Your task to perform on an android device: toggle javascript in the chrome app Image 0: 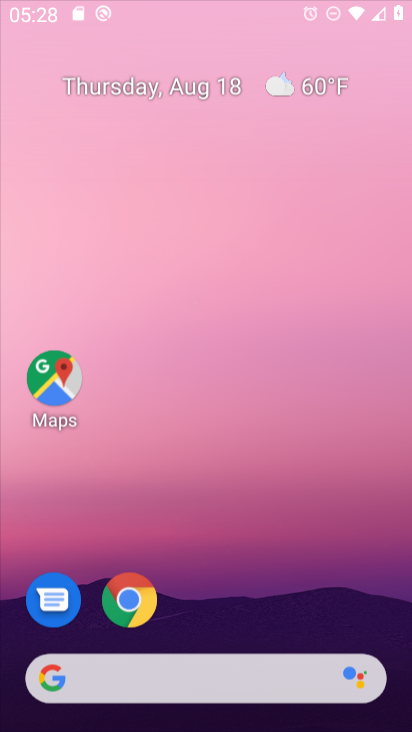
Step 0: press home button
Your task to perform on an android device: toggle javascript in the chrome app Image 1: 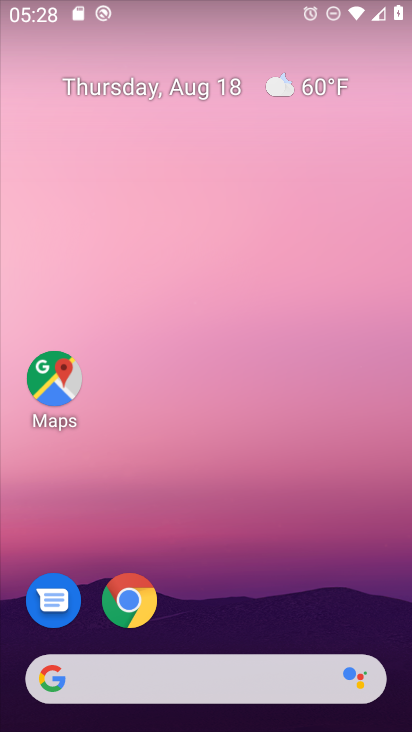
Step 1: click (133, 603)
Your task to perform on an android device: toggle javascript in the chrome app Image 2: 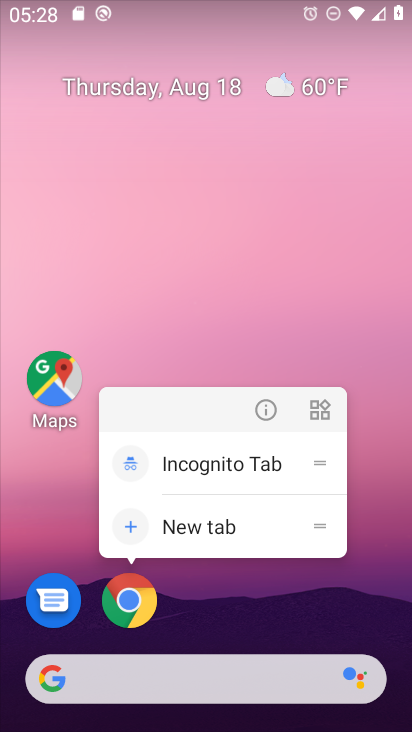
Step 2: click (133, 603)
Your task to perform on an android device: toggle javascript in the chrome app Image 3: 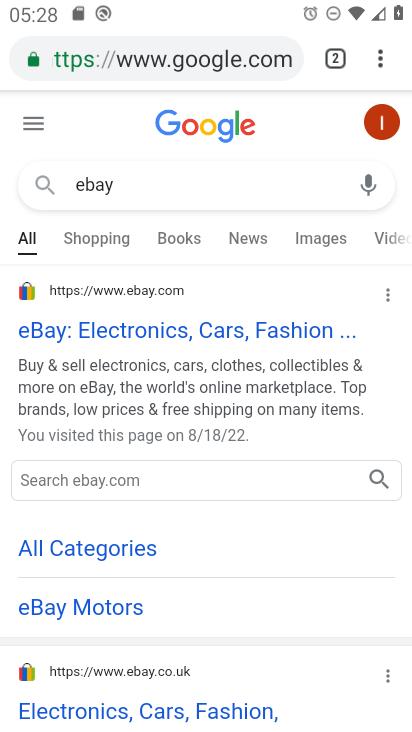
Step 3: drag from (379, 55) to (199, 629)
Your task to perform on an android device: toggle javascript in the chrome app Image 4: 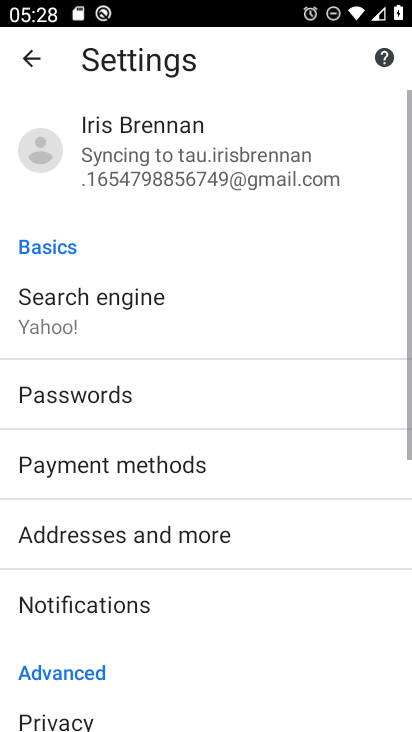
Step 4: drag from (305, 669) to (314, 204)
Your task to perform on an android device: toggle javascript in the chrome app Image 5: 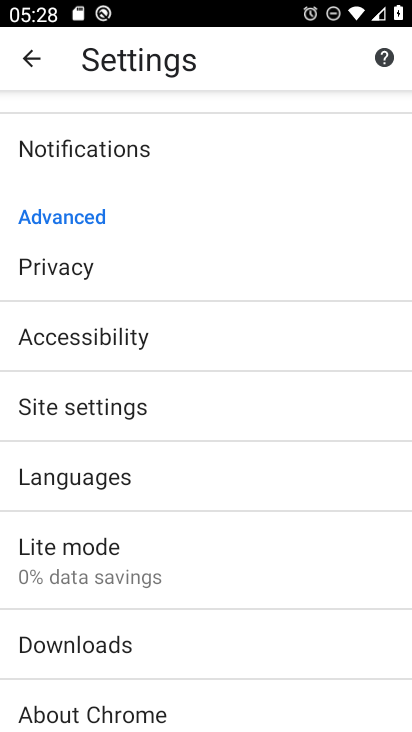
Step 5: click (77, 408)
Your task to perform on an android device: toggle javascript in the chrome app Image 6: 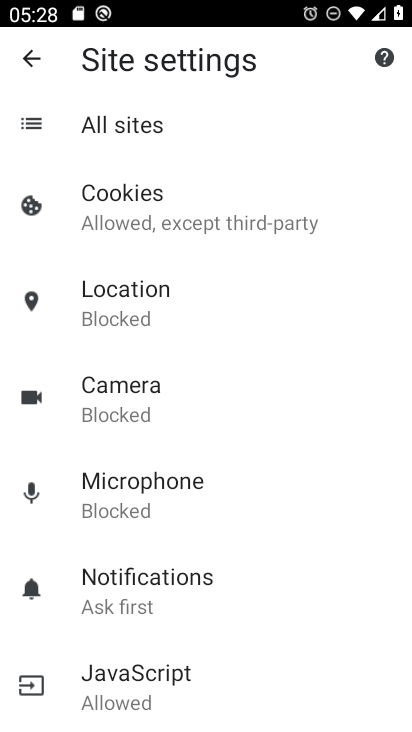
Step 6: click (130, 686)
Your task to perform on an android device: toggle javascript in the chrome app Image 7: 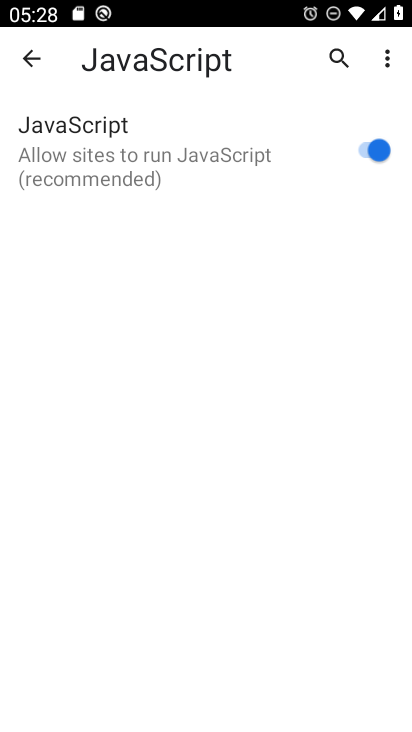
Step 7: click (369, 148)
Your task to perform on an android device: toggle javascript in the chrome app Image 8: 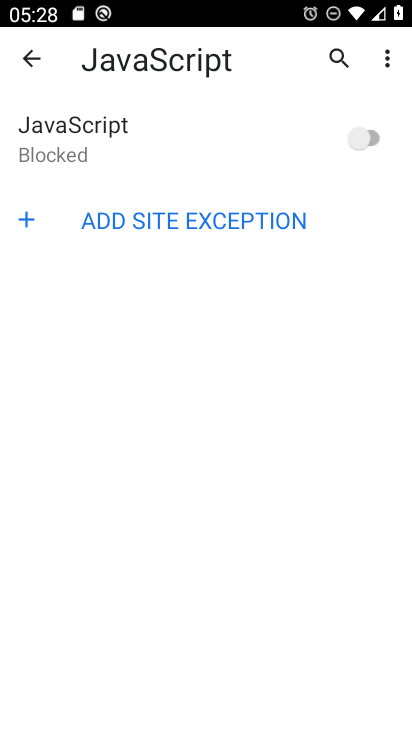
Step 8: task complete